Your task to perform on an android device: toggle javascript in the chrome app Image 0: 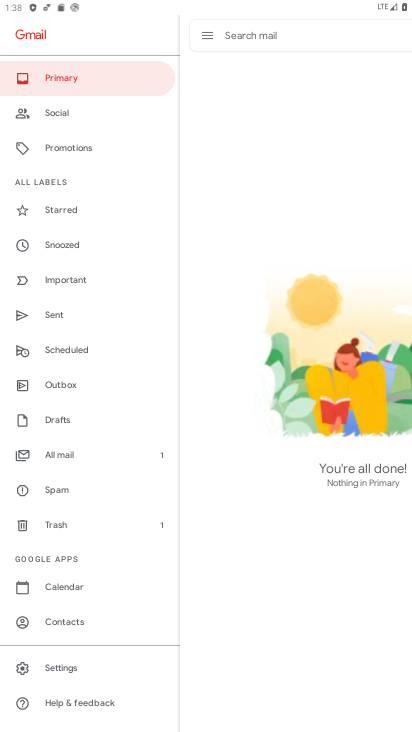
Step 0: press home button
Your task to perform on an android device: toggle javascript in the chrome app Image 1: 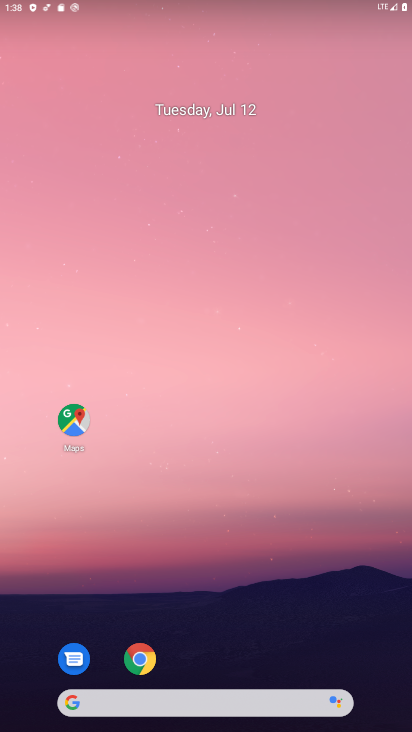
Step 1: drag from (212, 589) to (236, 85)
Your task to perform on an android device: toggle javascript in the chrome app Image 2: 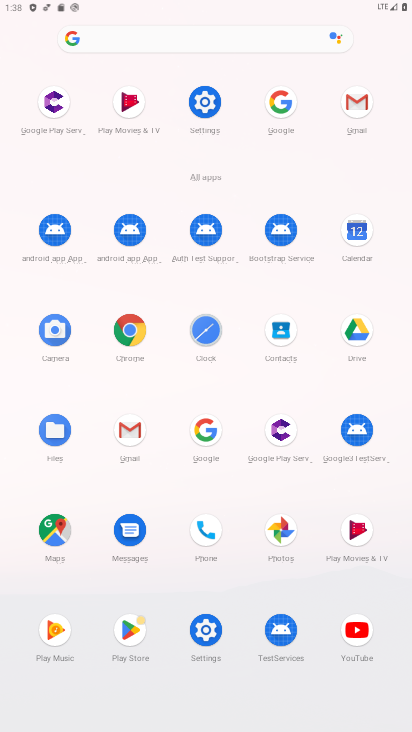
Step 2: click (132, 326)
Your task to perform on an android device: toggle javascript in the chrome app Image 3: 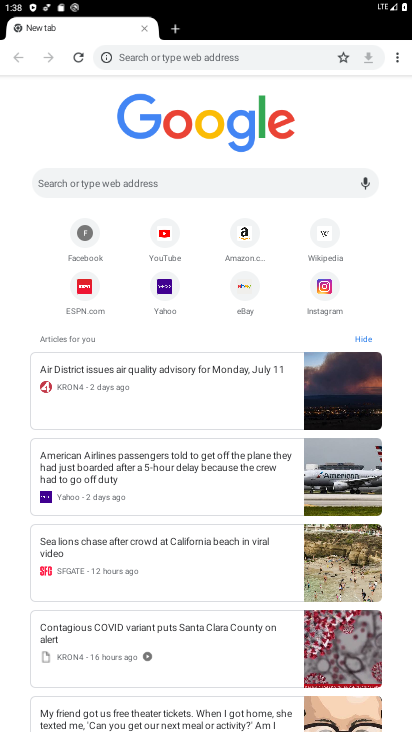
Step 3: click (397, 59)
Your task to perform on an android device: toggle javascript in the chrome app Image 4: 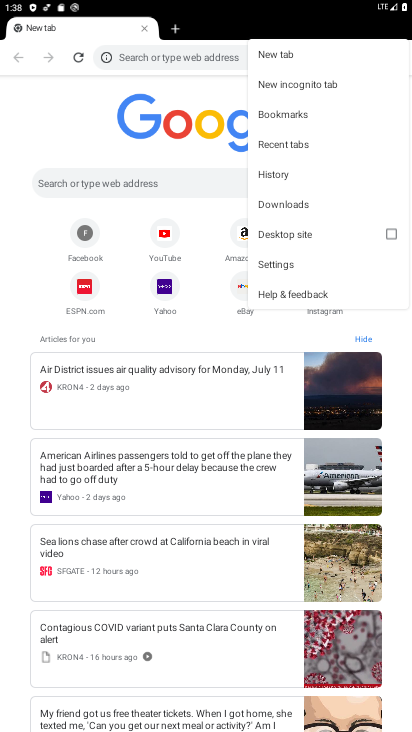
Step 4: click (282, 264)
Your task to perform on an android device: toggle javascript in the chrome app Image 5: 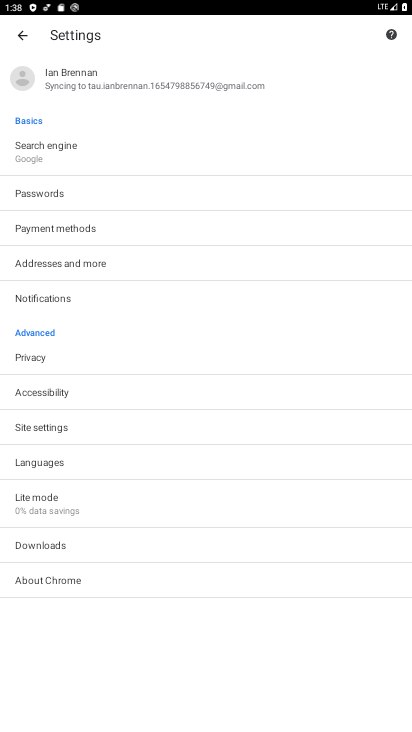
Step 5: click (46, 427)
Your task to perform on an android device: toggle javascript in the chrome app Image 6: 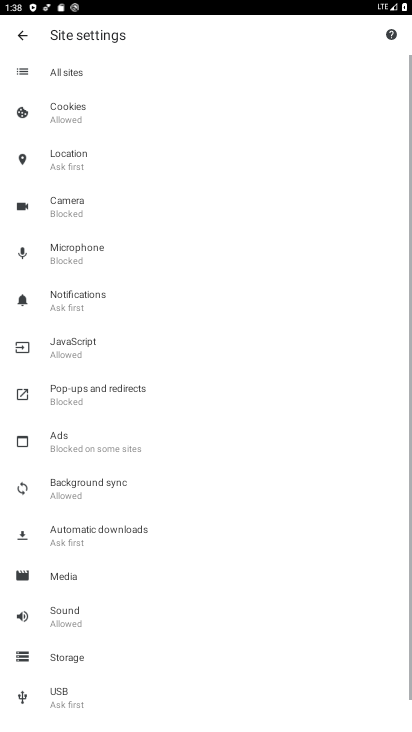
Step 6: click (88, 344)
Your task to perform on an android device: toggle javascript in the chrome app Image 7: 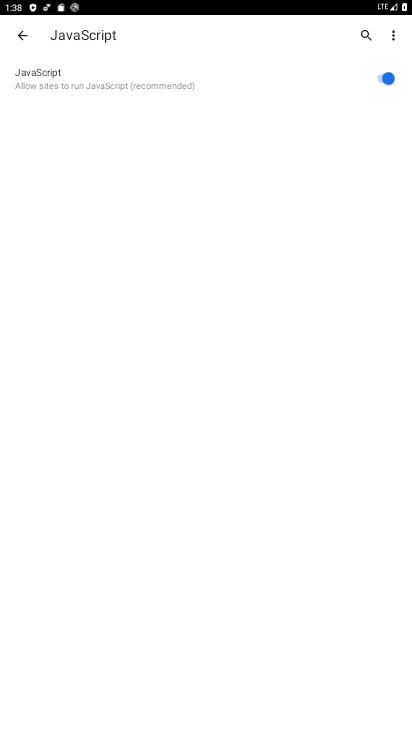
Step 7: click (389, 71)
Your task to perform on an android device: toggle javascript in the chrome app Image 8: 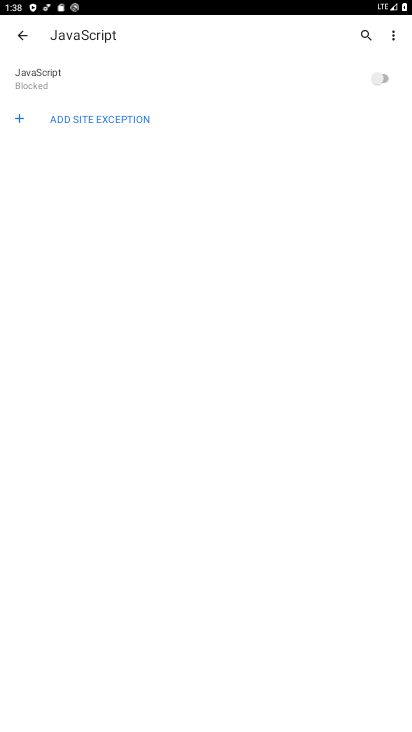
Step 8: task complete